Your task to perform on an android device: Open the calendar app, open the side menu, and click the "Day" option Image 0: 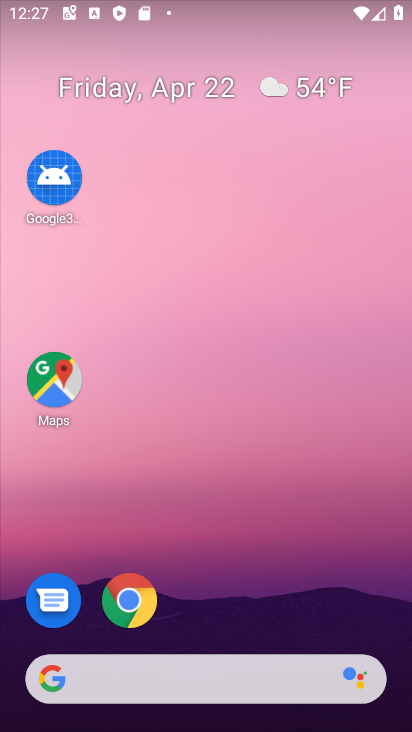
Step 0: drag from (259, 546) to (232, 16)
Your task to perform on an android device: Open the calendar app, open the side menu, and click the "Day" option Image 1: 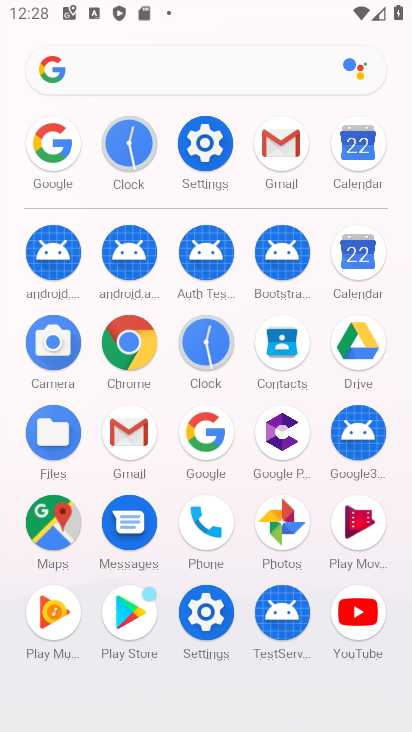
Step 1: click (358, 258)
Your task to perform on an android device: Open the calendar app, open the side menu, and click the "Day" option Image 2: 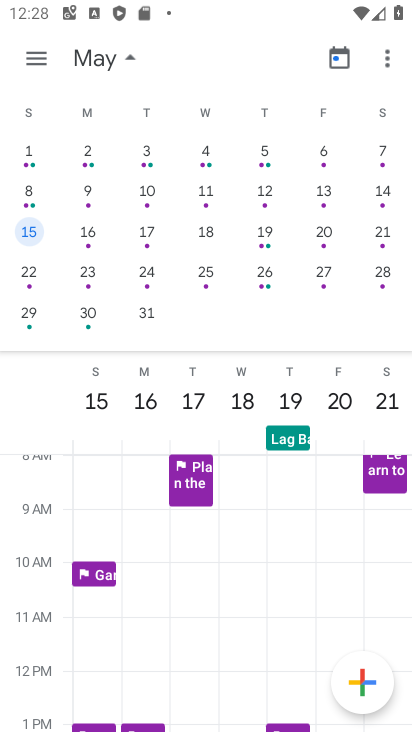
Step 2: click (36, 57)
Your task to perform on an android device: Open the calendar app, open the side menu, and click the "Day" option Image 3: 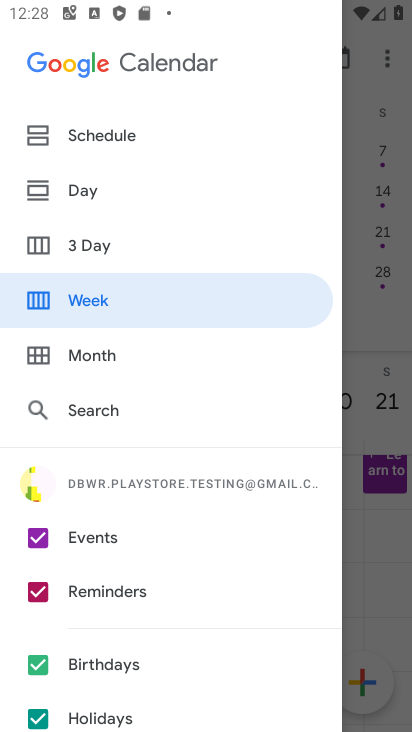
Step 3: click (106, 184)
Your task to perform on an android device: Open the calendar app, open the side menu, and click the "Day" option Image 4: 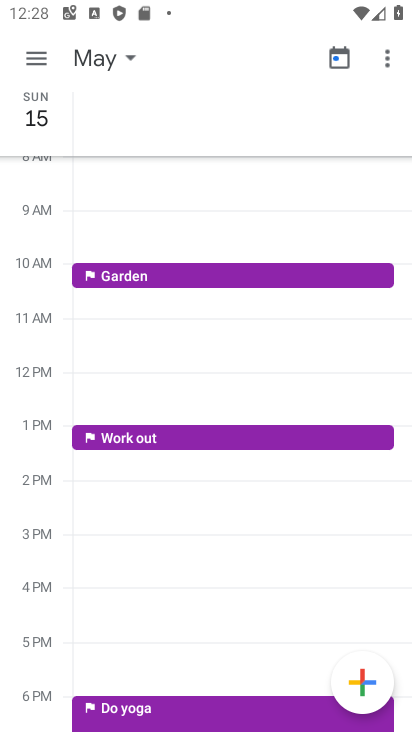
Step 4: task complete